Your task to perform on an android device: Empty the shopping cart on amazon. Image 0: 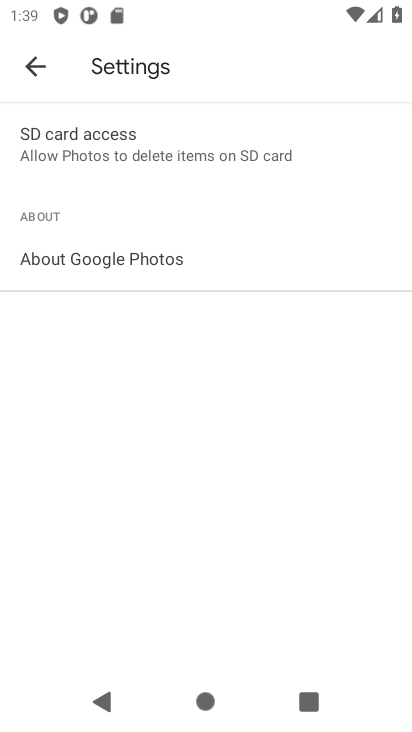
Step 0: press home button
Your task to perform on an android device: Empty the shopping cart on amazon. Image 1: 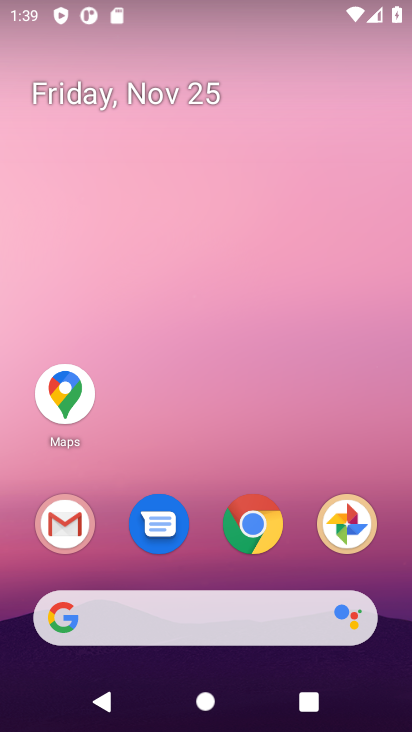
Step 1: click (261, 530)
Your task to perform on an android device: Empty the shopping cart on amazon. Image 2: 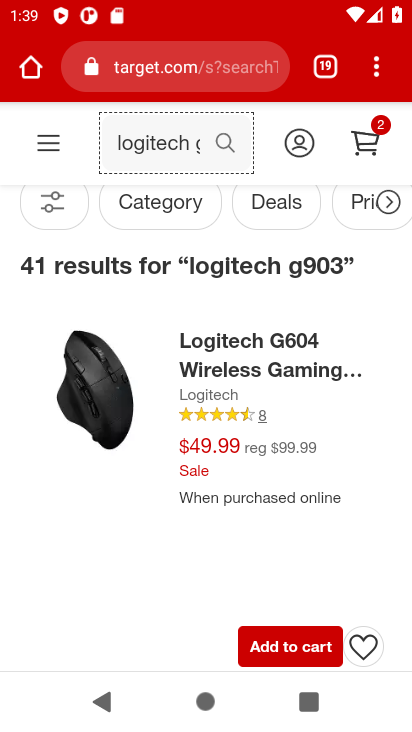
Step 2: click (145, 67)
Your task to perform on an android device: Empty the shopping cart on amazon. Image 3: 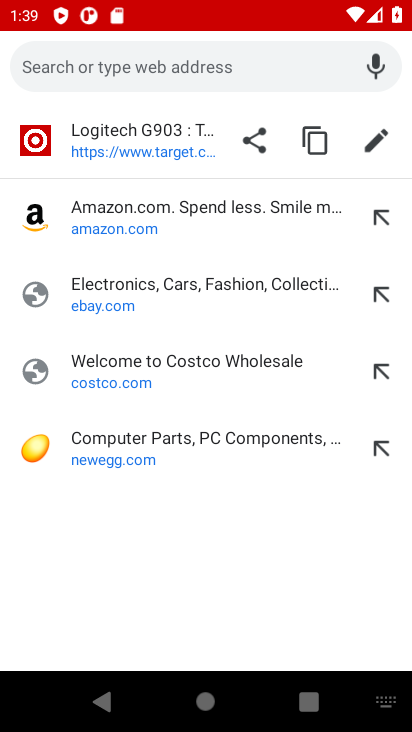
Step 3: click (80, 215)
Your task to perform on an android device: Empty the shopping cart on amazon. Image 4: 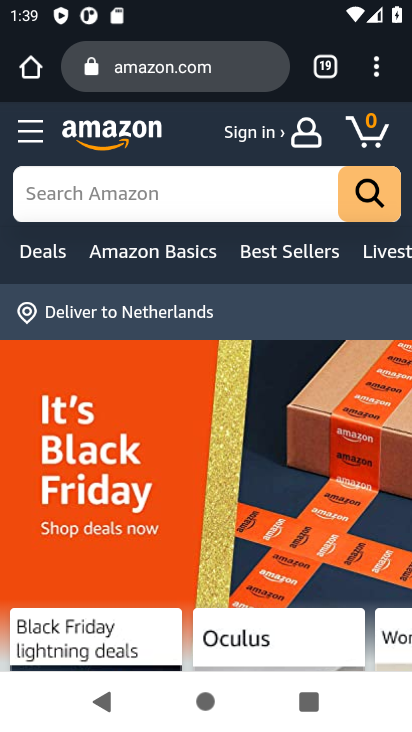
Step 4: click (374, 124)
Your task to perform on an android device: Empty the shopping cart on amazon. Image 5: 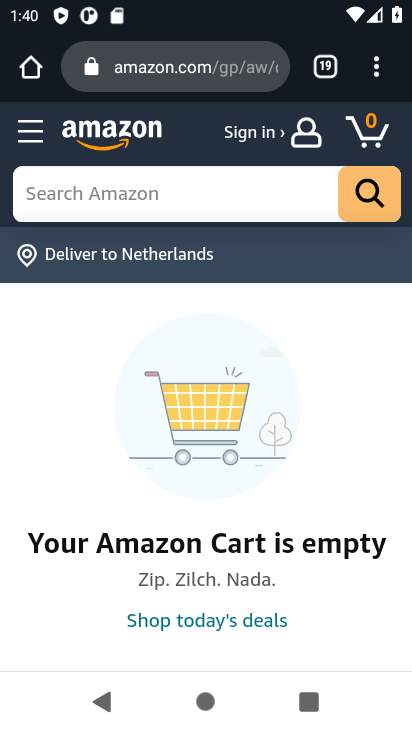
Step 5: task complete